Your task to perform on an android device: toggle wifi Image 0: 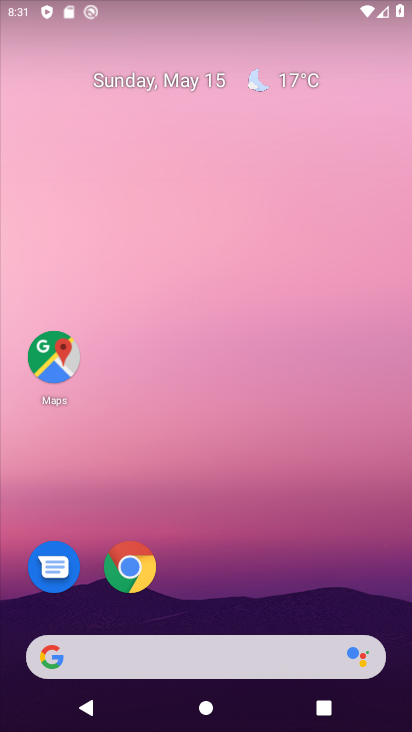
Step 0: drag from (190, 636) to (313, 167)
Your task to perform on an android device: toggle wifi Image 1: 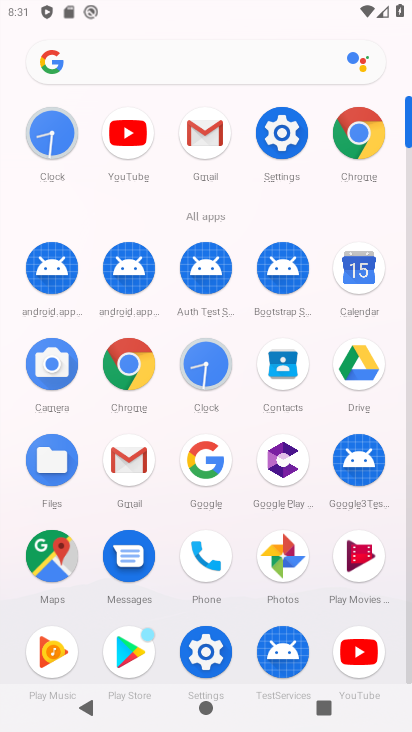
Step 1: click (292, 138)
Your task to perform on an android device: toggle wifi Image 2: 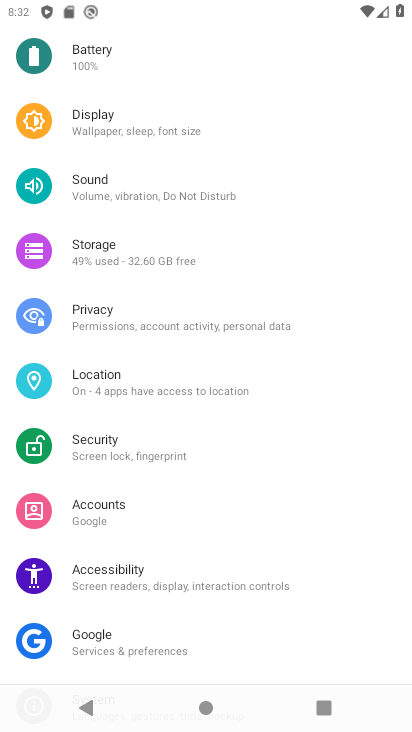
Step 2: drag from (283, 139) to (239, 634)
Your task to perform on an android device: toggle wifi Image 3: 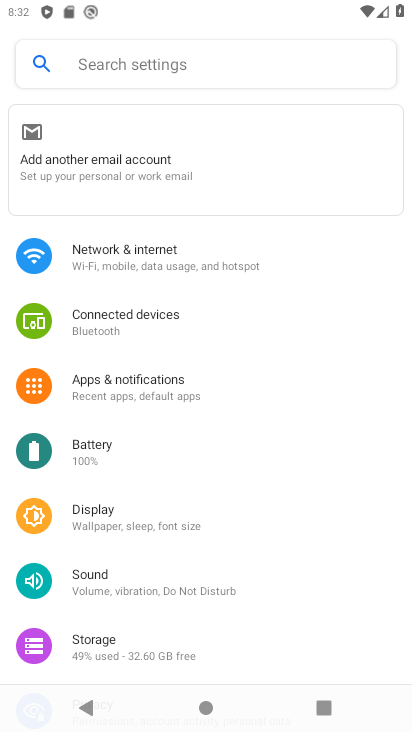
Step 3: click (139, 273)
Your task to perform on an android device: toggle wifi Image 4: 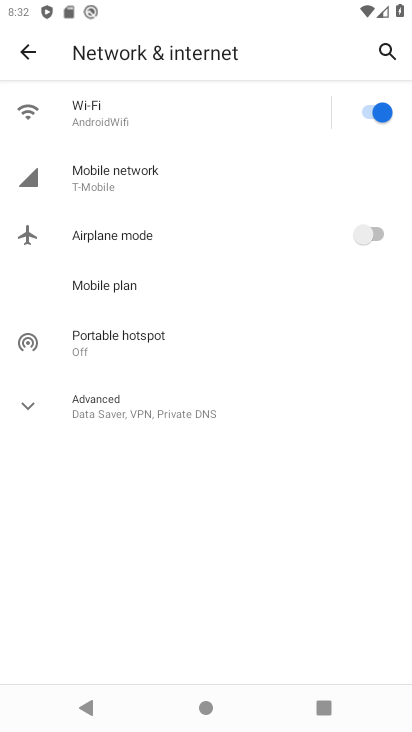
Step 4: click (368, 119)
Your task to perform on an android device: toggle wifi Image 5: 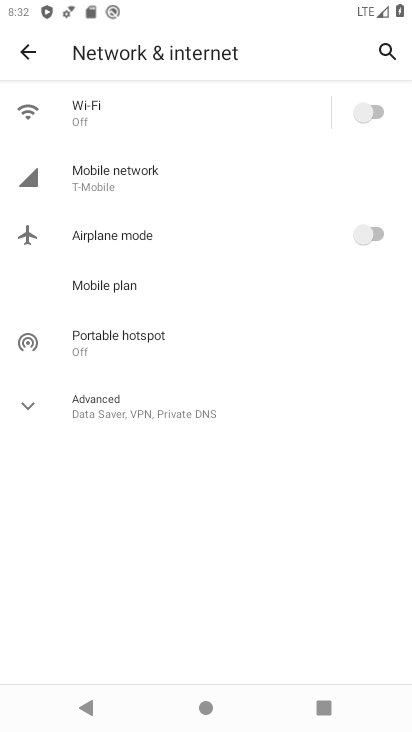
Step 5: task complete